Your task to perform on an android device: check android version Image 0: 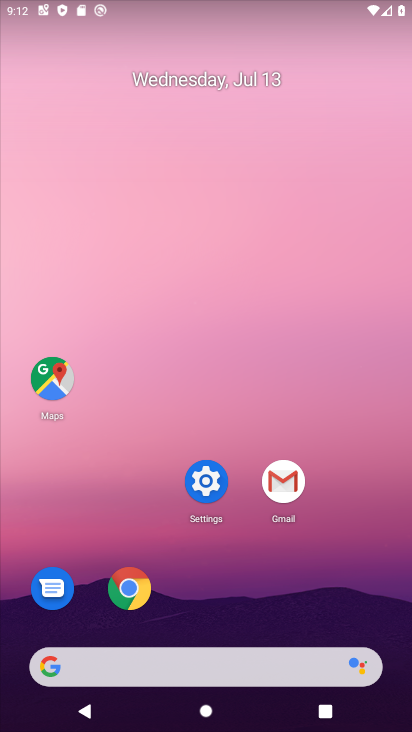
Step 0: click (202, 493)
Your task to perform on an android device: check android version Image 1: 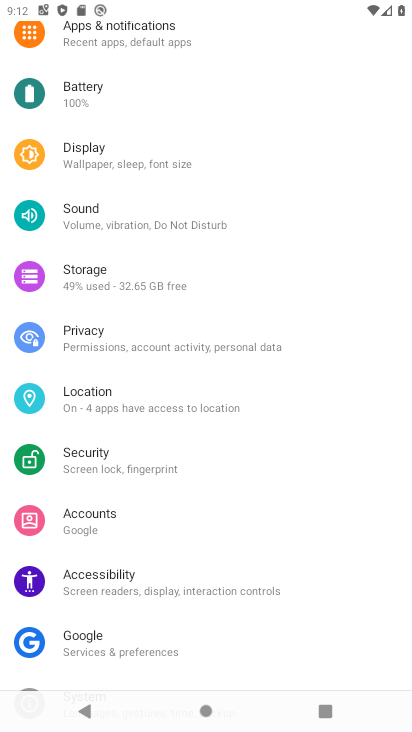
Step 1: drag from (238, 641) to (254, 182)
Your task to perform on an android device: check android version Image 2: 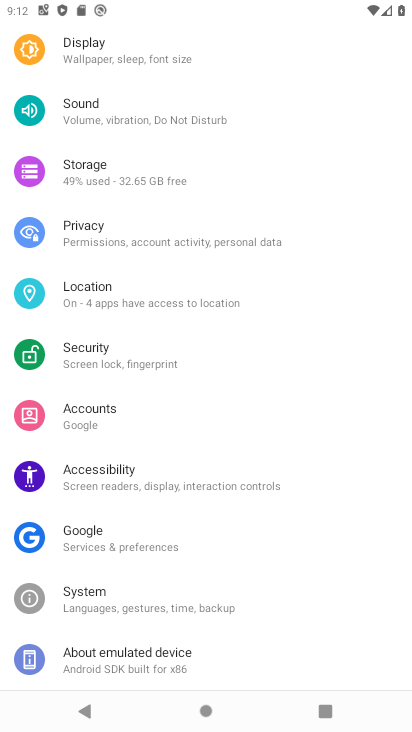
Step 2: click (140, 653)
Your task to perform on an android device: check android version Image 3: 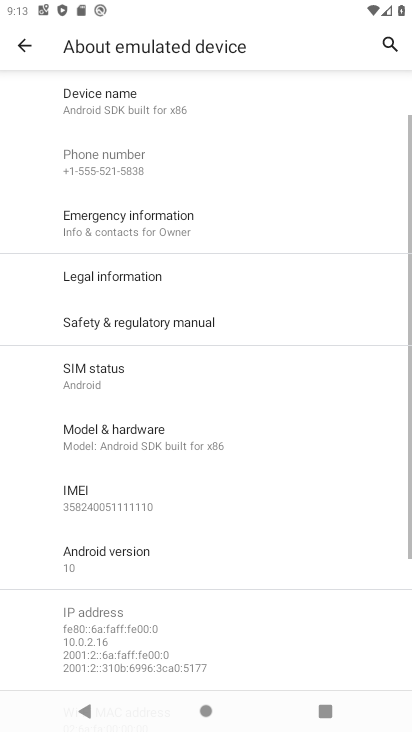
Step 3: click (91, 560)
Your task to perform on an android device: check android version Image 4: 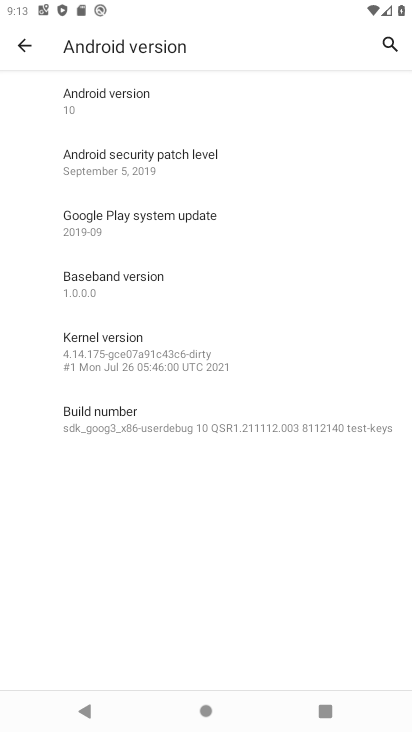
Step 4: click (138, 107)
Your task to perform on an android device: check android version Image 5: 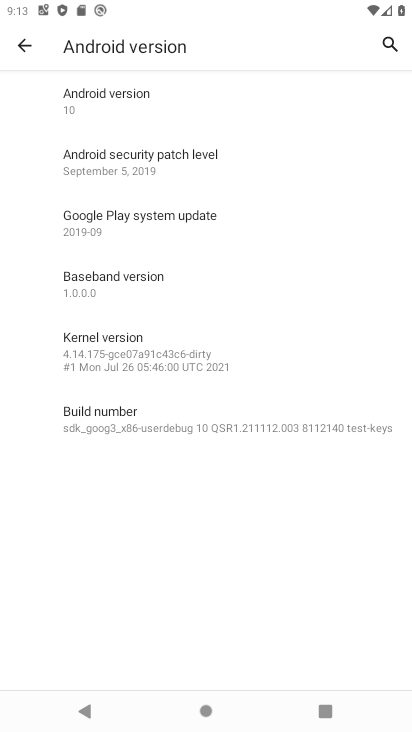
Step 5: task complete